Your task to perform on an android device: open a new tab in the chrome app Image 0: 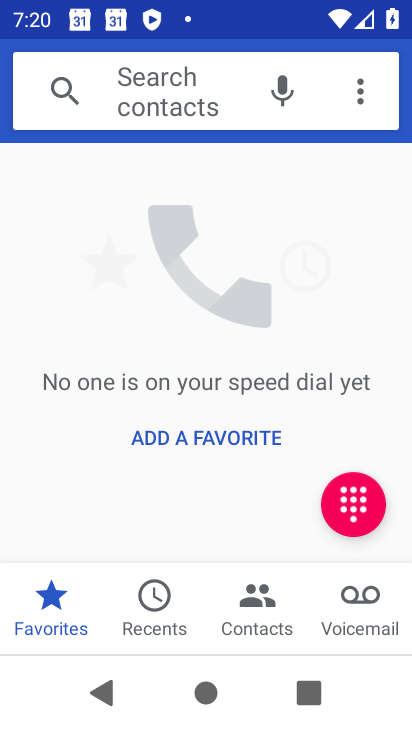
Step 0: press home button
Your task to perform on an android device: open a new tab in the chrome app Image 1: 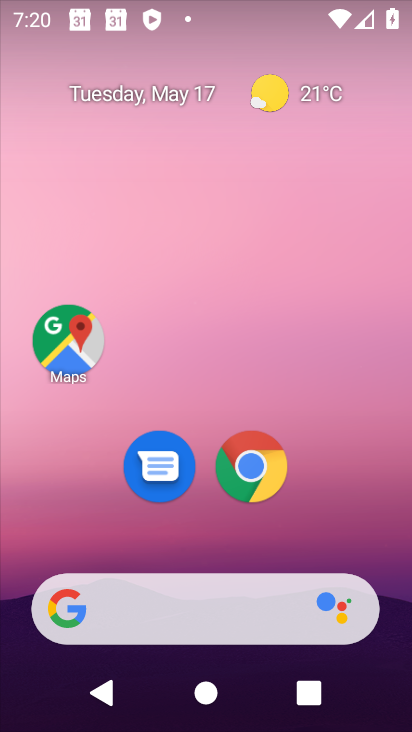
Step 1: click (253, 478)
Your task to perform on an android device: open a new tab in the chrome app Image 2: 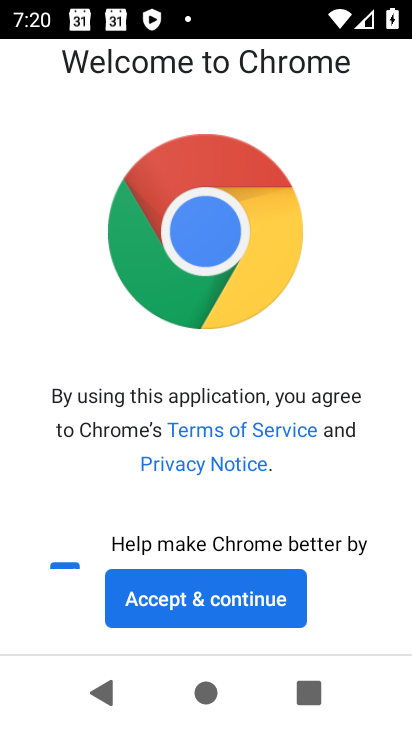
Step 2: click (220, 601)
Your task to perform on an android device: open a new tab in the chrome app Image 3: 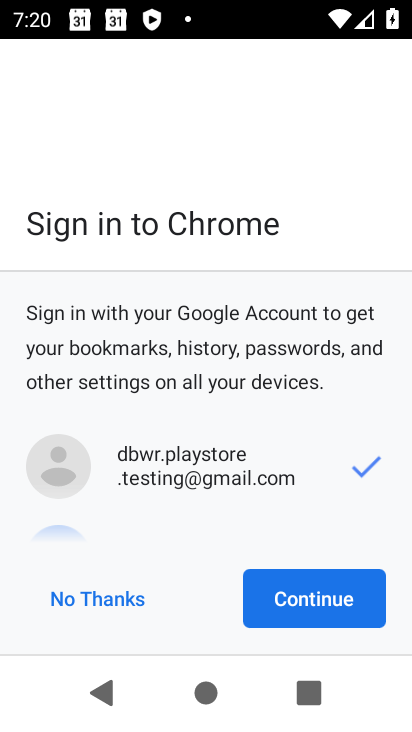
Step 3: click (282, 583)
Your task to perform on an android device: open a new tab in the chrome app Image 4: 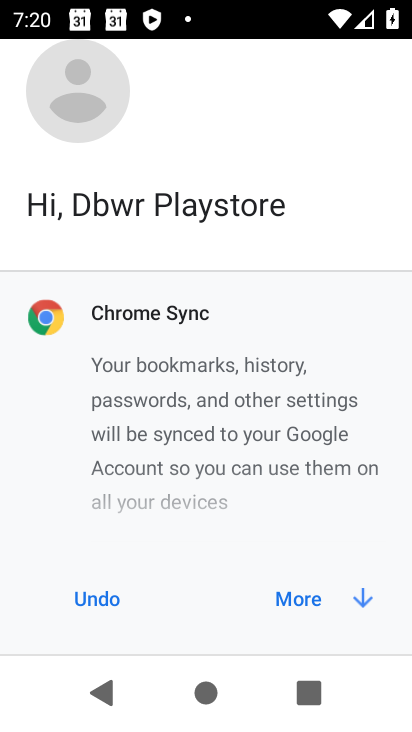
Step 4: click (285, 593)
Your task to perform on an android device: open a new tab in the chrome app Image 5: 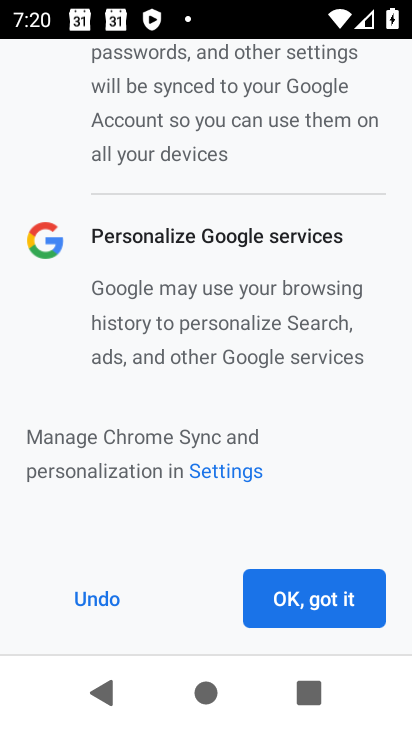
Step 5: click (304, 624)
Your task to perform on an android device: open a new tab in the chrome app Image 6: 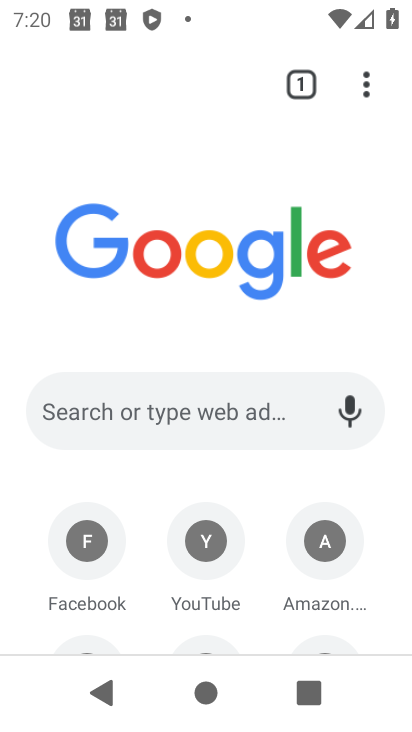
Step 6: task complete